Your task to perform on an android device: Open the stopwatch Image 0: 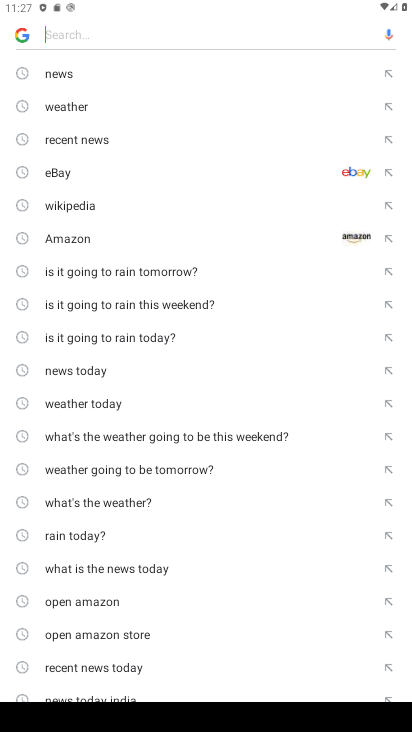
Step 0: press back button
Your task to perform on an android device: Open the stopwatch Image 1: 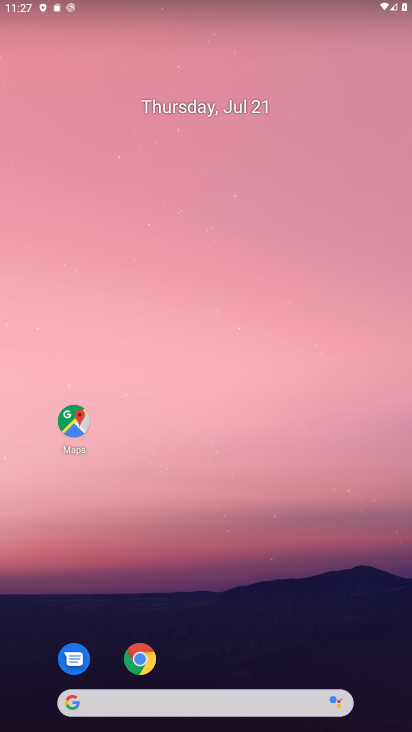
Step 1: task complete